Your task to perform on an android device: open the mobile data screen to see how much data has been used Image 0: 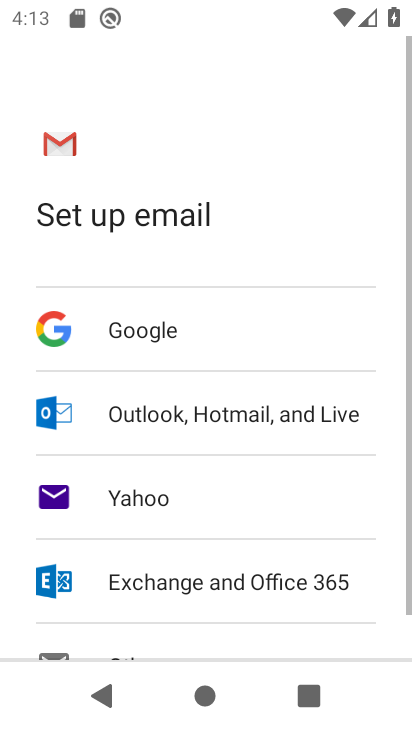
Step 0: press home button
Your task to perform on an android device: open the mobile data screen to see how much data has been used Image 1: 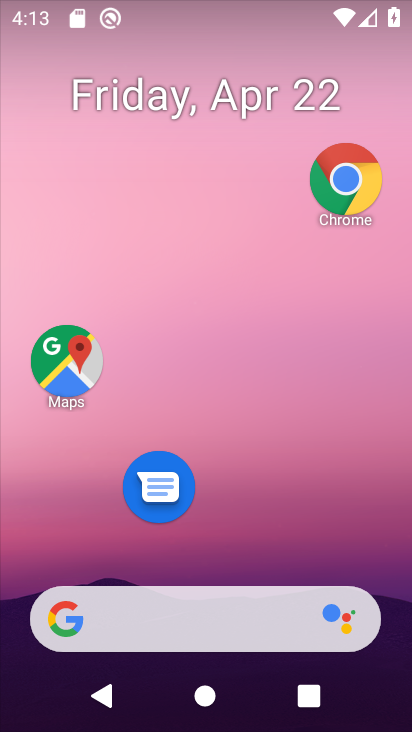
Step 1: drag from (259, 465) to (268, 96)
Your task to perform on an android device: open the mobile data screen to see how much data has been used Image 2: 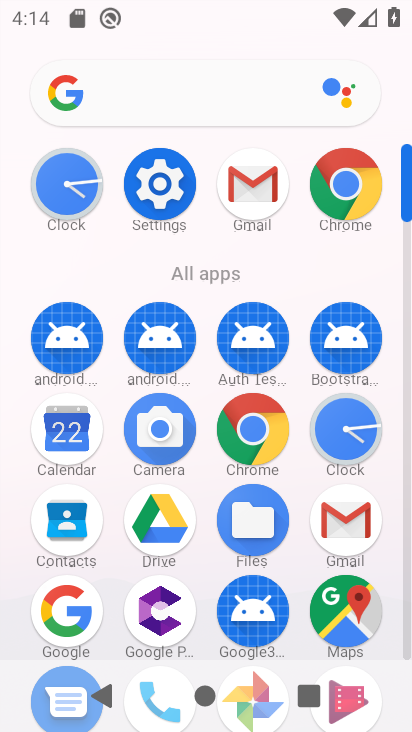
Step 2: click (145, 188)
Your task to perform on an android device: open the mobile data screen to see how much data has been used Image 3: 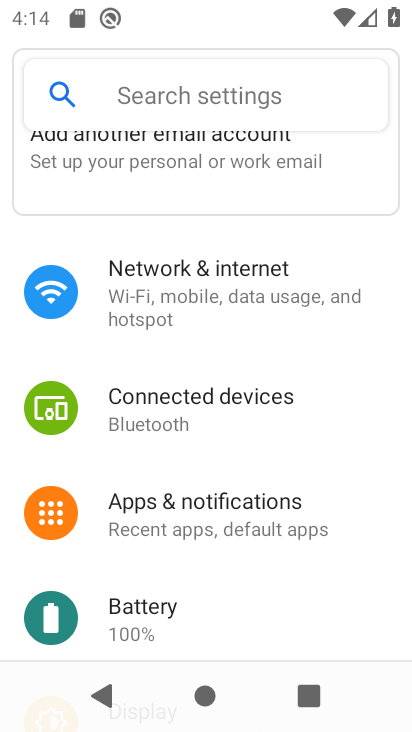
Step 3: click (151, 303)
Your task to perform on an android device: open the mobile data screen to see how much data has been used Image 4: 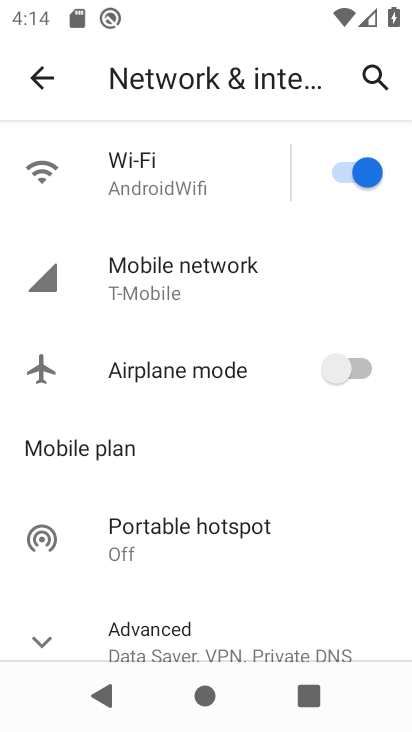
Step 4: click (156, 297)
Your task to perform on an android device: open the mobile data screen to see how much data has been used Image 5: 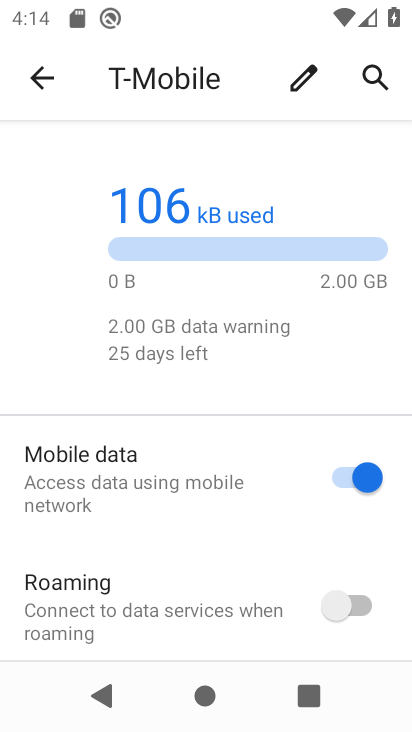
Step 5: task complete